Your task to perform on an android device: Open location settings Image 0: 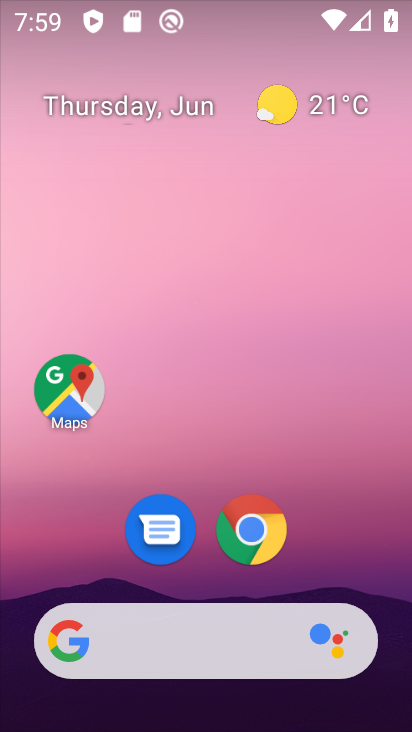
Step 0: click (253, 524)
Your task to perform on an android device: Open location settings Image 1: 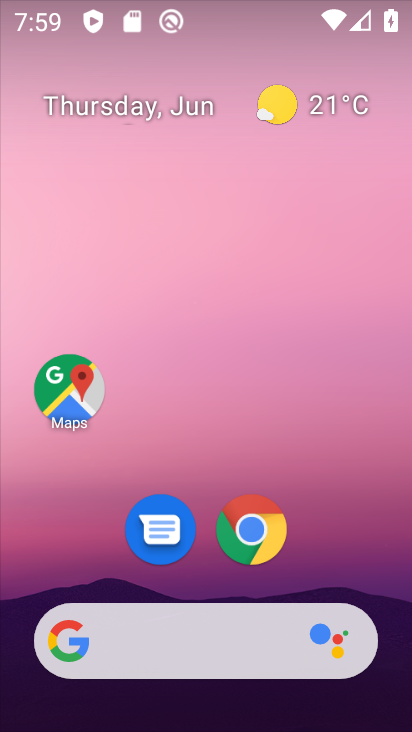
Step 1: click (255, 515)
Your task to perform on an android device: Open location settings Image 2: 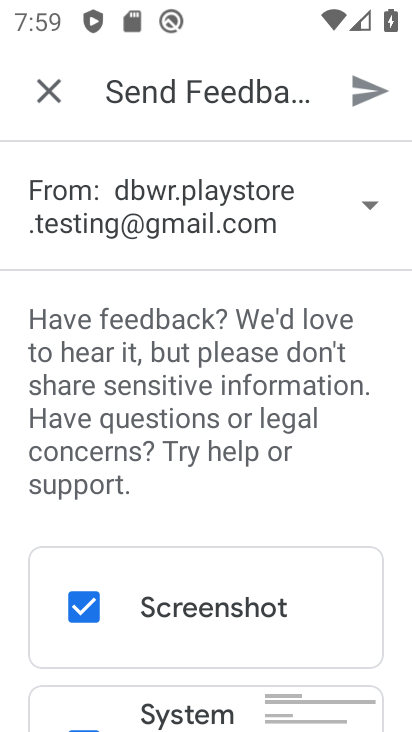
Step 2: press home button
Your task to perform on an android device: Open location settings Image 3: 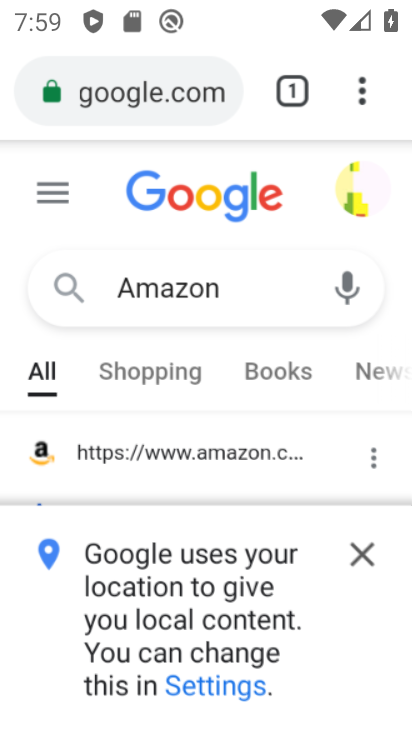
Step 3: press home button
Your task to perform on an android device: Open location settings Image 4: 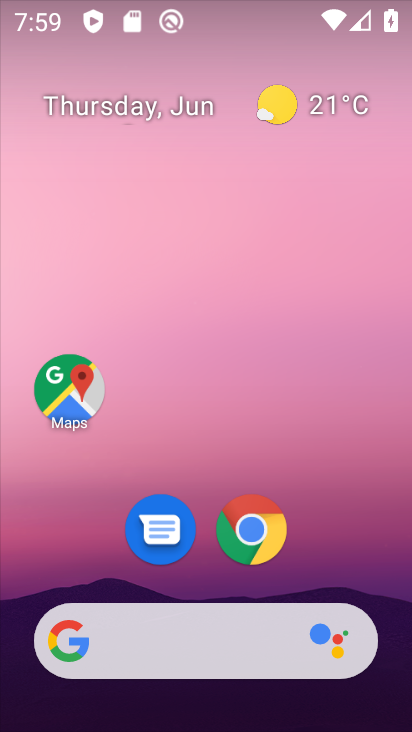
Step 4: drag from (394, 671) to (338, 75)
Your task to perform on an android device: Open location settings Image 5: 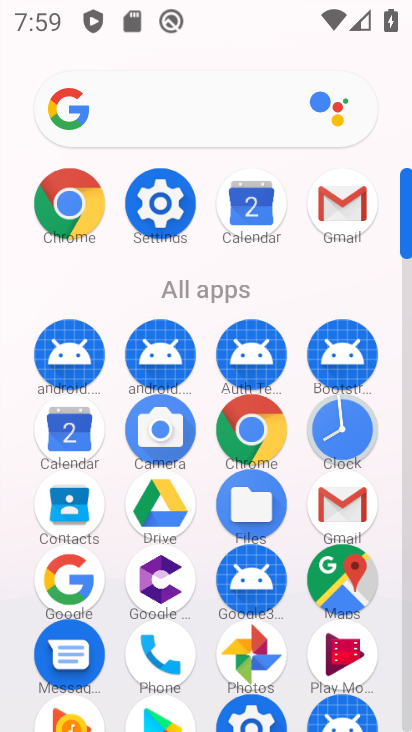
Step 5: click (150, 204)
Your task to perform on an android device: Open location settings Image 6: 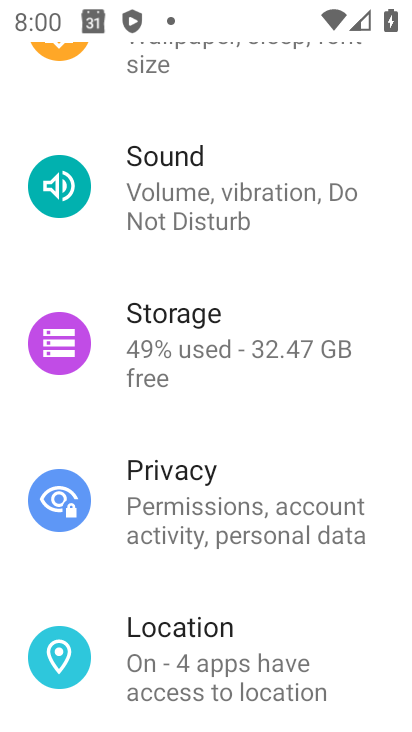
Step 6: click (162, 646)
Your task to perform on an android device: Open location settings Image 7: 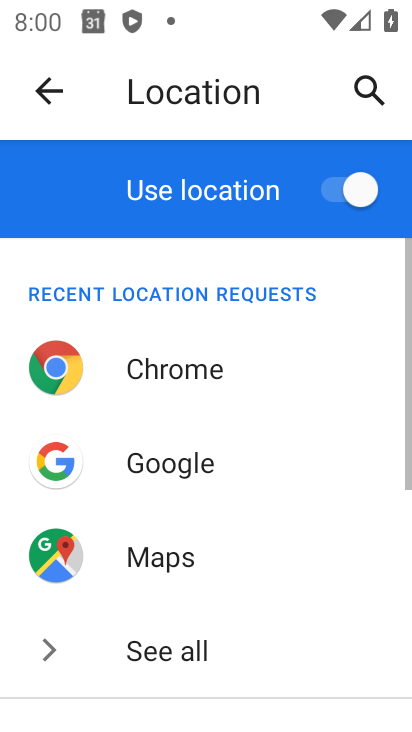
Step 7: drag from (290, 609) to (310, 258)
Your task to perform on an android device: Open location settings Image 8: 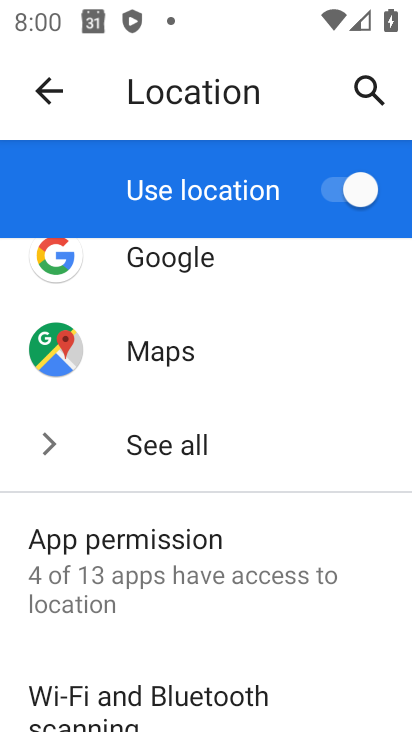
Step 8: drag from (248, 644) to (270, 315)
Your task to perform on an android device: Open location settings Image 9: 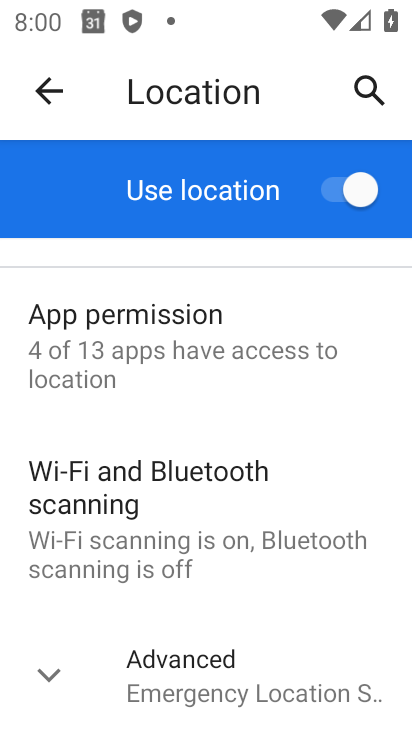
Step 9: drag from (270, 535) to (297, 326)
Your task to perform on an android device: Open location settings Image 10: 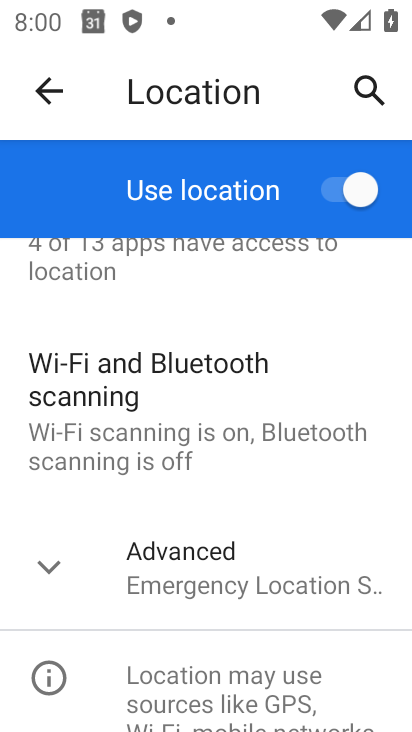
Step 10: click (63, 562)
Your task to perform on an android device: Open location settings Image 11: 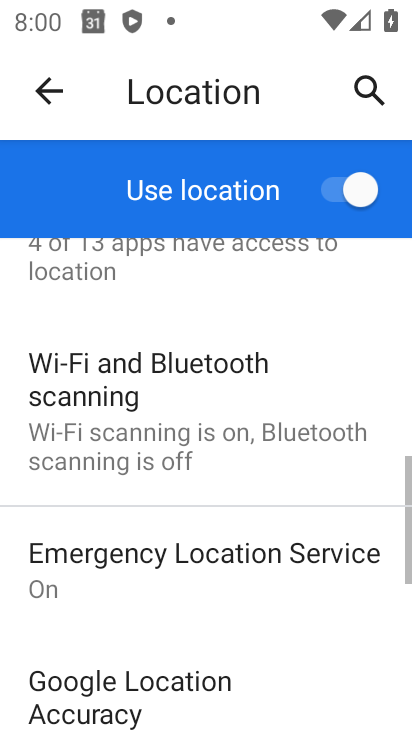
Step 11: task complete